Your task to perform on an android device: Show me popular videos on Youtube Image 0: 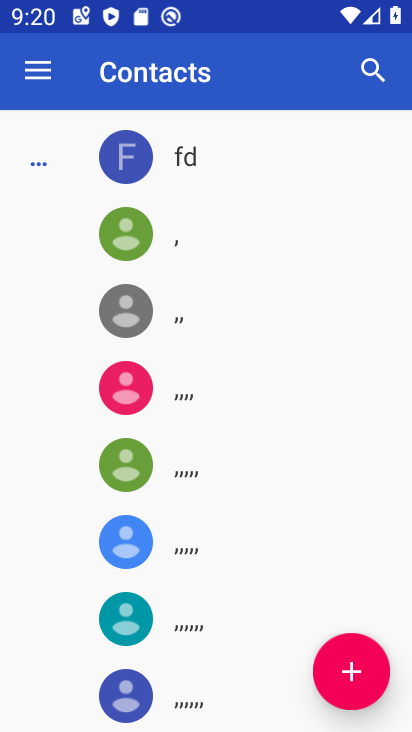
Step 0: press home button
Your task to perform on an android device: Show me popular videos on Youtube Image 1: 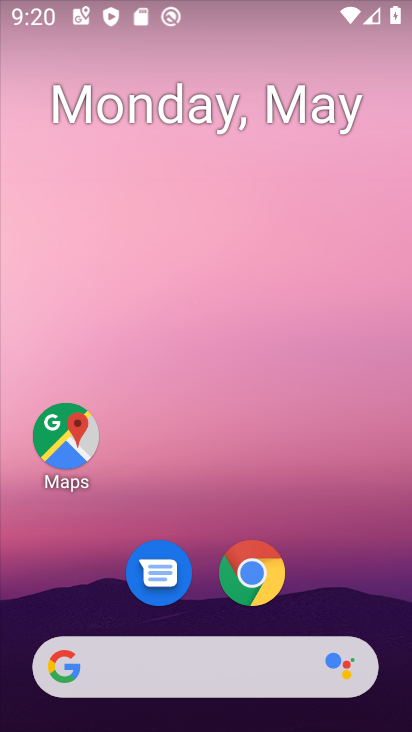
Step 1: drag from (351, 563) to (246, 109)
Your task to perform on an android device: Show me popular videos on Youtube Image 2: 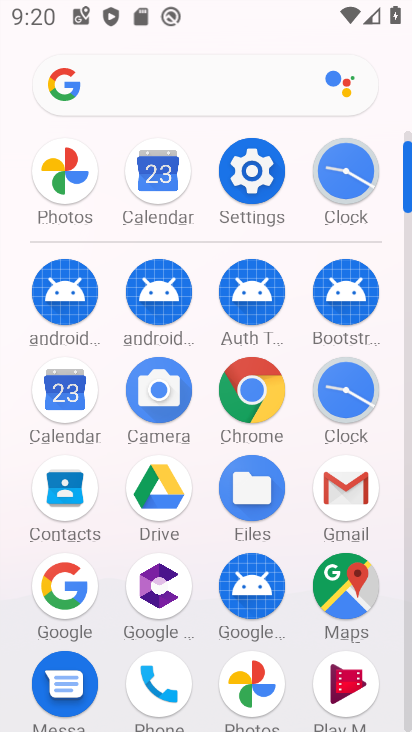
Step 2: click (408, 719)
Your task to perform on an android device: Show me popular videos on Youtube Image 3: 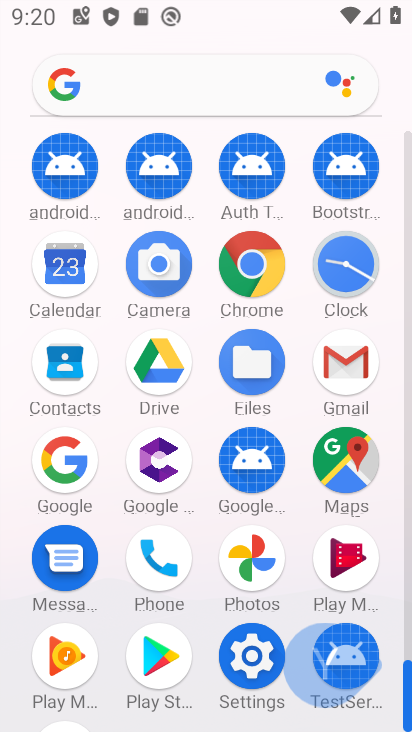
Step 3: click (408, 719)
Your task to perform on an android device: Show me popular videos on Youtube Image 4: 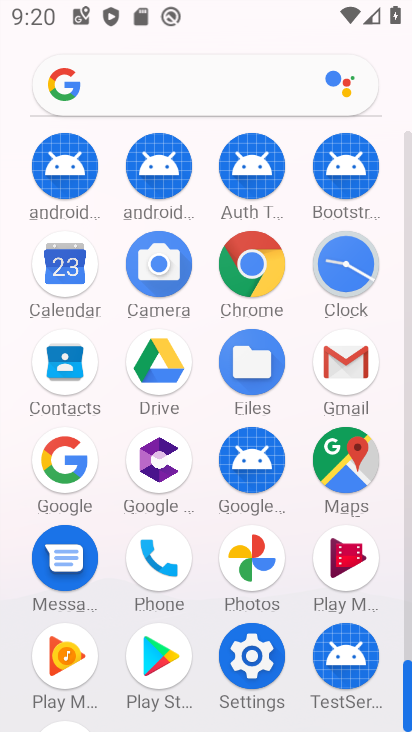
Step 4: click (408, 719)
Your task to perform on an android device: Show me popular videos on Youtube Image 5: 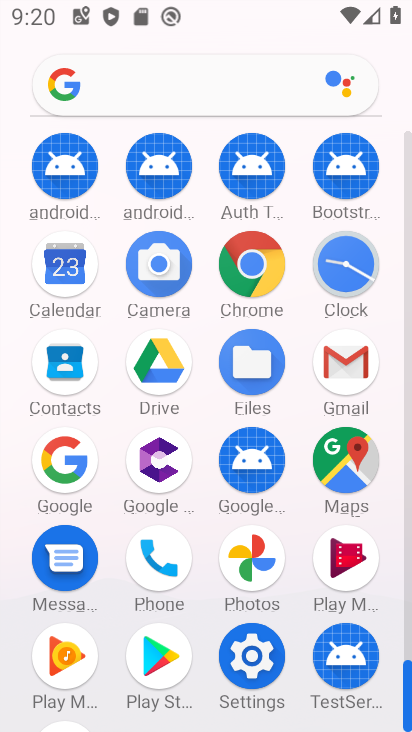
Step 5: drag from (408, 719) to (306, 722)
Your task to perform on an android device: Show me popular videos on Youtube Image 6: 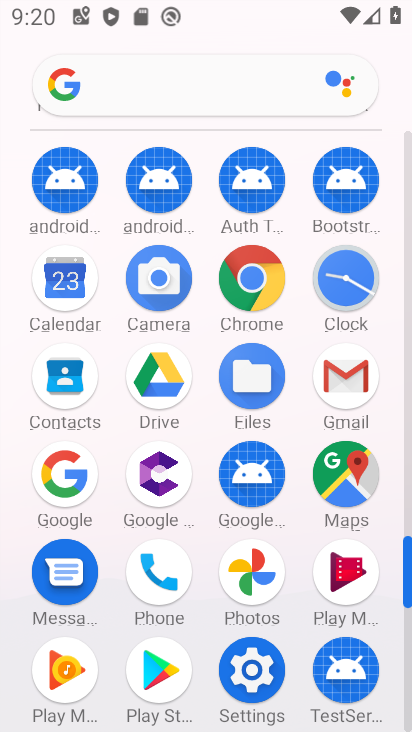
Step 6: drag from (406, 578) to (410, 730)
Your task to perform on an android device: Show me popular videos on Youtube Image 7: 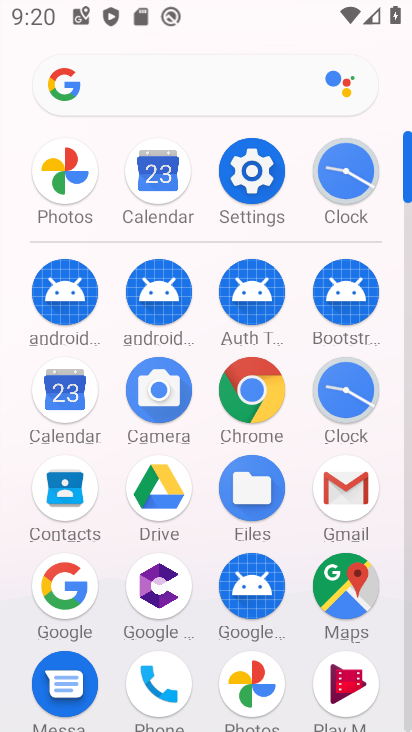
Step 7: click (410, 729)
Your task to perform on an android device: Show me popular videos on Youtube Image 8: 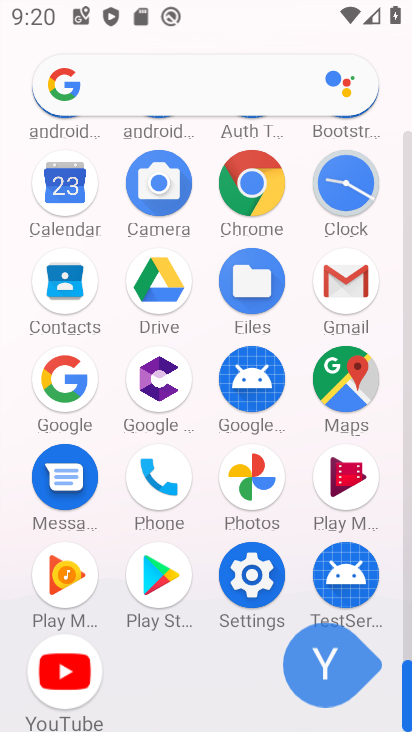
Step 8: click (410, 729)
Your task to perform on an android device: Show me popular videos on Youtube Image 9: 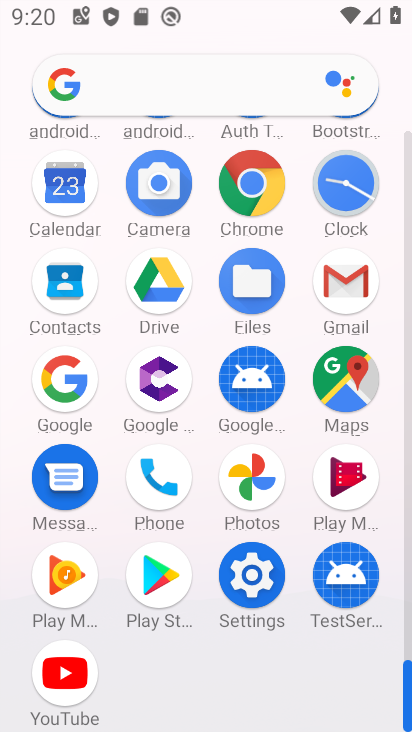
Step 9: click (94, 677)
Your task to perform on an android device: Show me popular videos on Youtube Image 10: 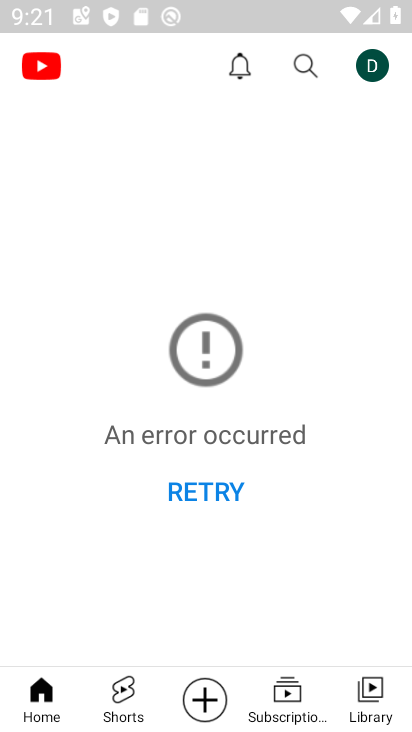
Step 10: task complete